Your task to perform on an android device: install app "Speedtest by Ookla" Image 0: 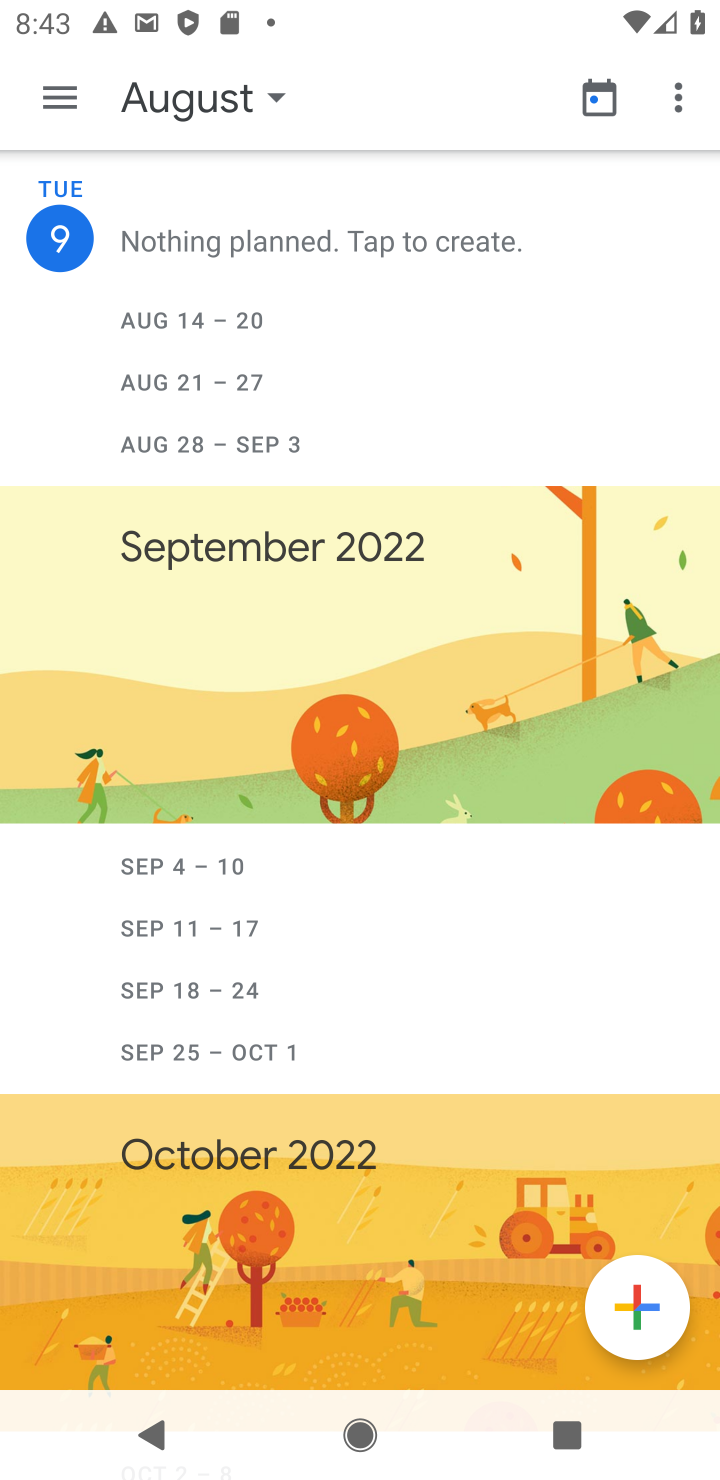
Step 0: press home button
Your task to perform on an android device: install app "Speedtest by Ookla" Image 1: 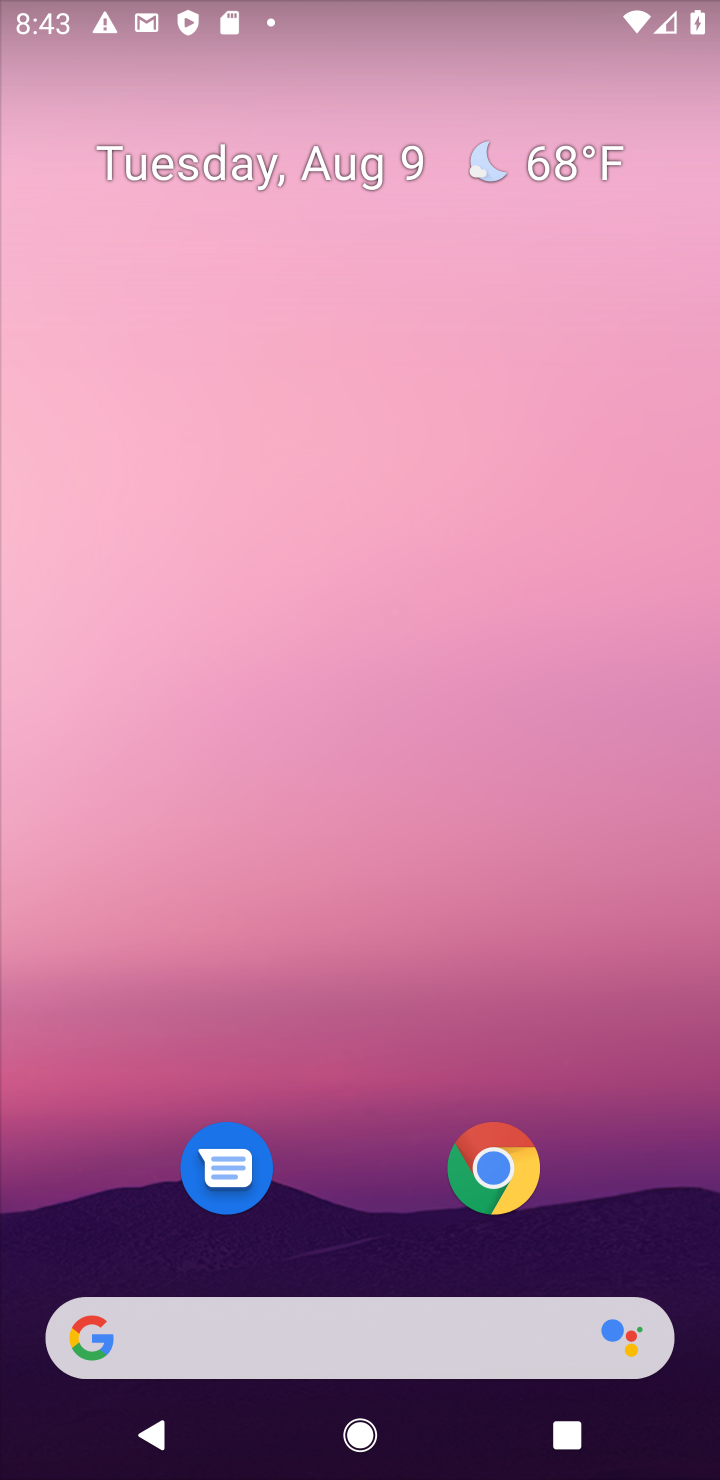
Step 1: drag from (381, 1350) to (140, 33)
Your task to perform on an android device: install app "Speedtest by Ookla" Image 2: 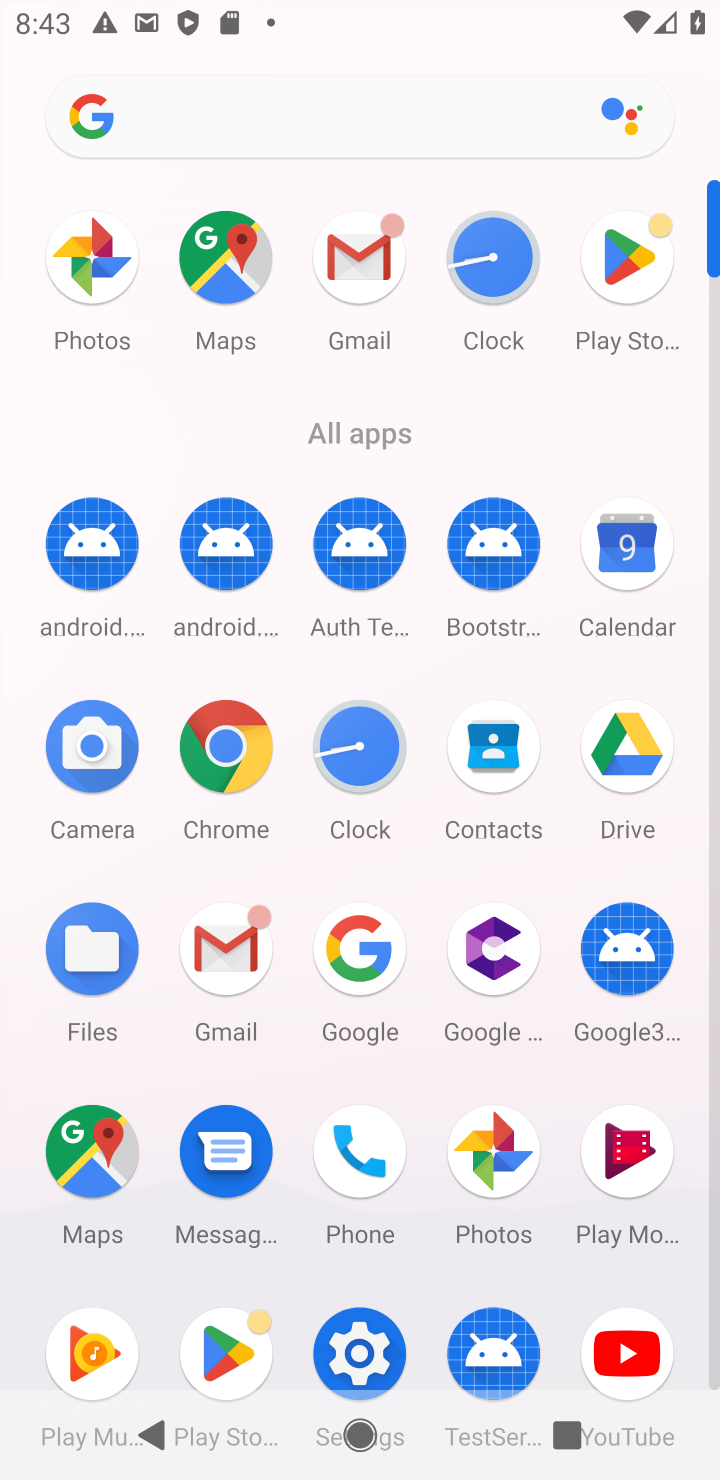
Step 2: click (629, 261)
Your task to perform on an android device: install app "Speedtest by Ookla" Image 3: 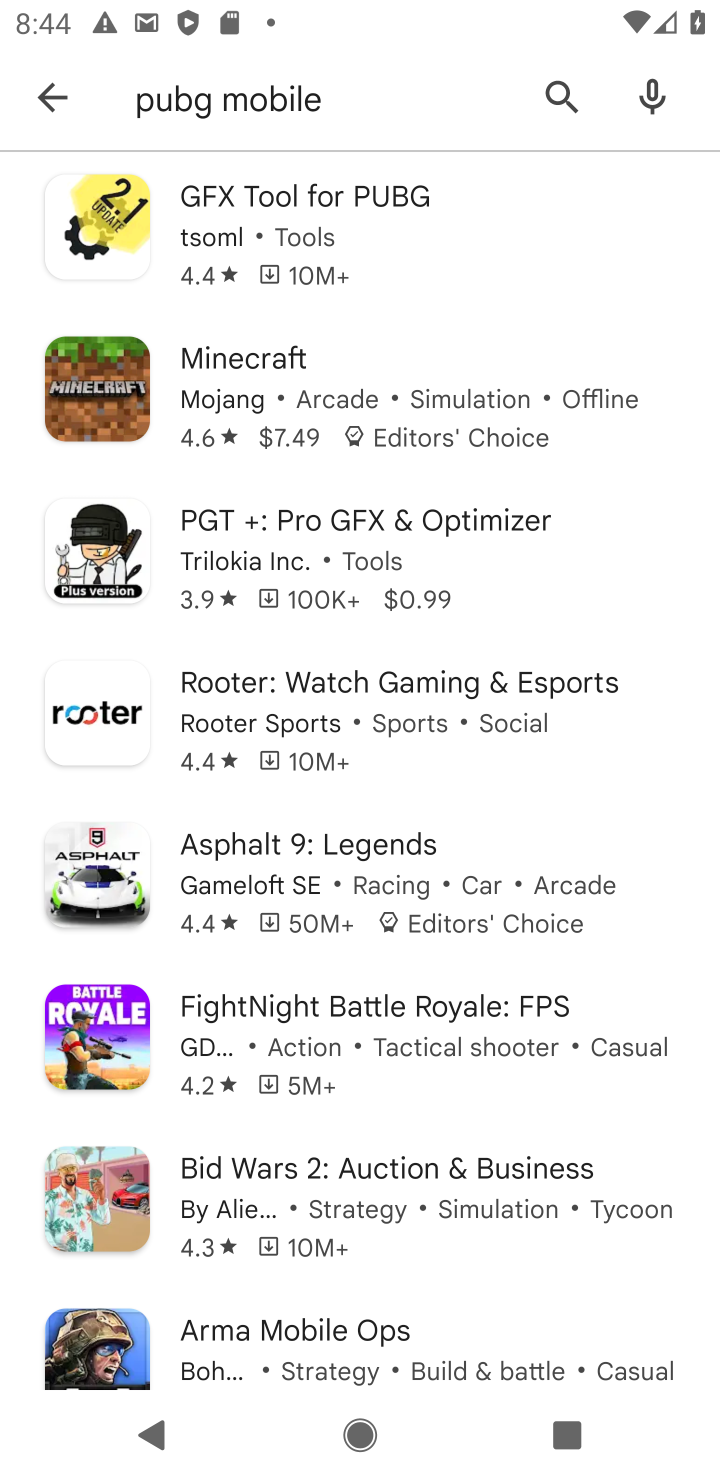
Step 3: click (564, 107)
Your task to perform on an android device: install app "Speedtest by Ookla" Image 4: 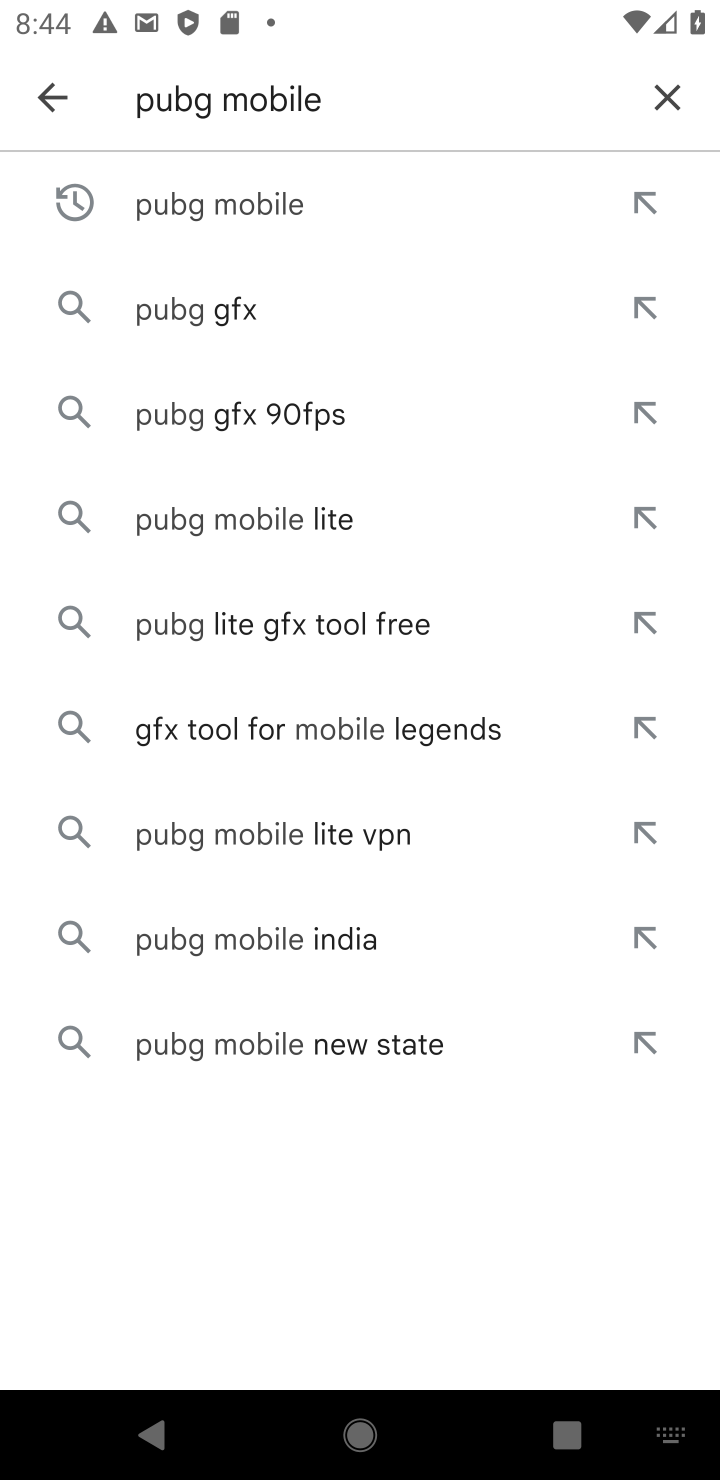
Step 4: click (674, 93)
Your task to perform on an android device: install app "Speedtest by Ookla" Image 5: 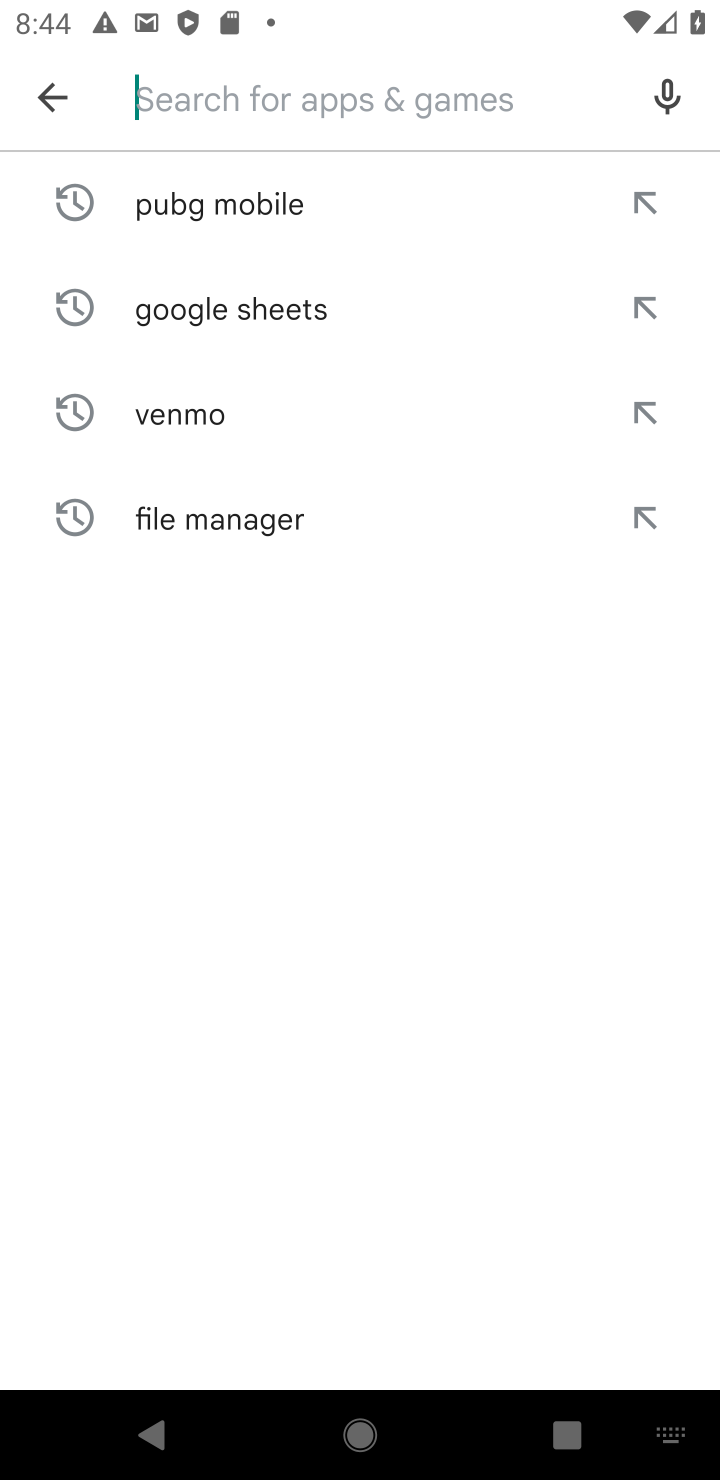
Step 5: type "speedtest by ookla"
Your task to perform on an android device: install app "Speedtest by Ookla" Image 6: 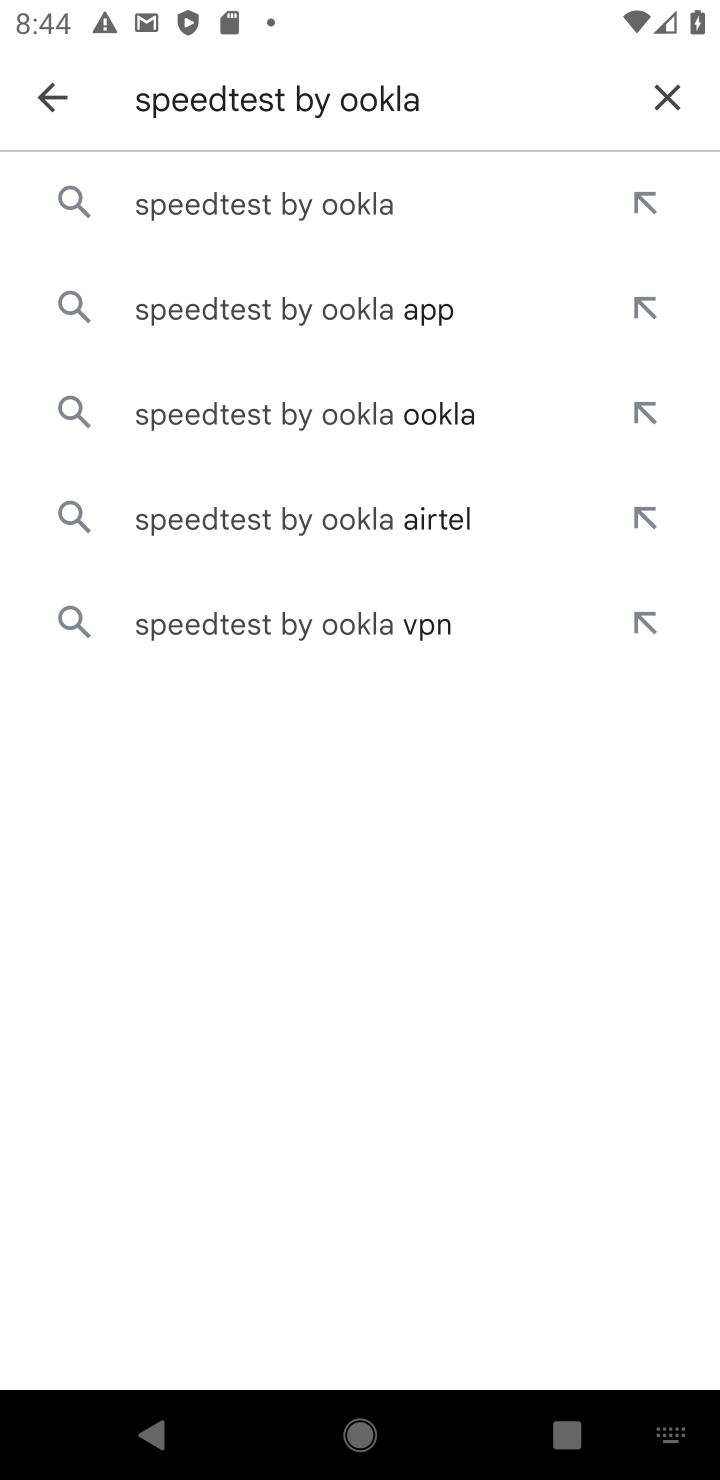
Step 6: click (290, 214)
Your task to perform on an android device: install app "Speedtest by Ookla" Image 7: 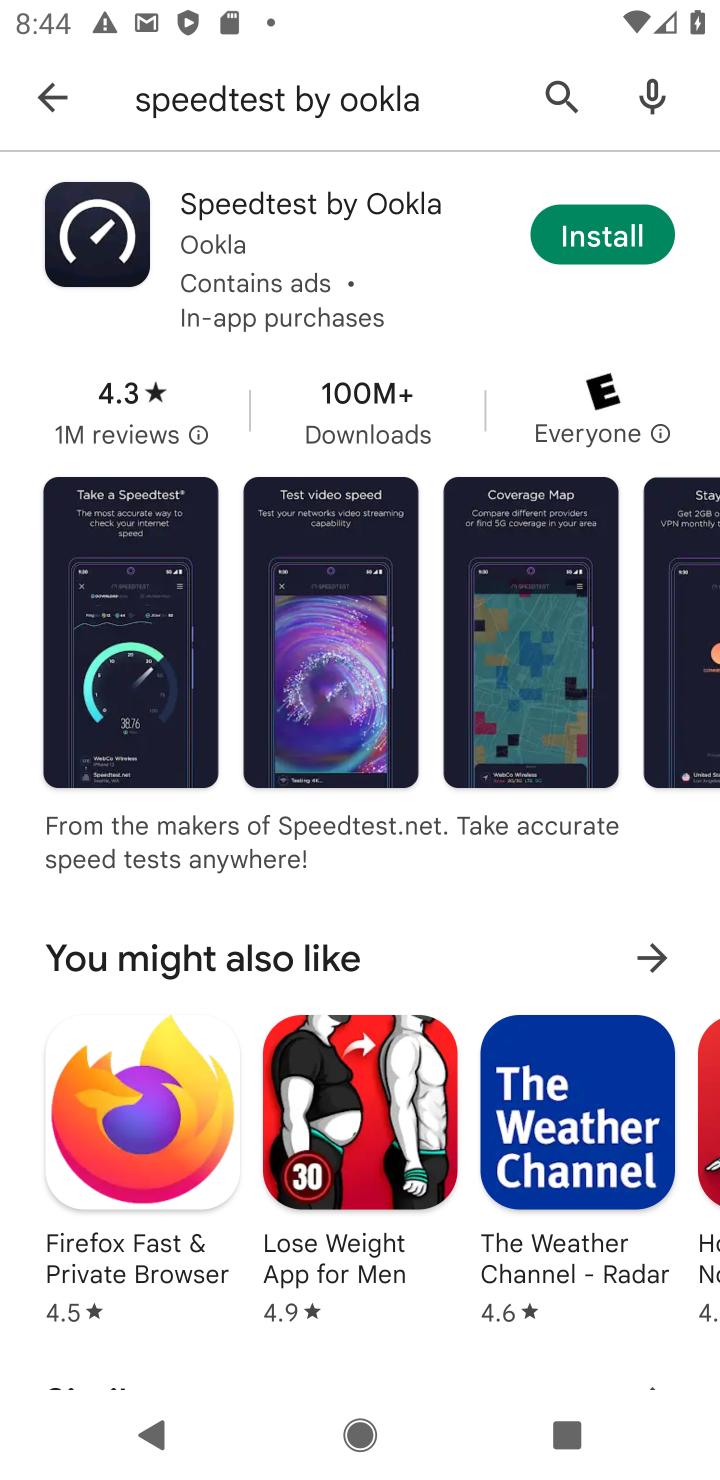
Step 7: click (634, 236)
Your task to perform on an android device: install app "Speedtest by Ookla" Image 8: 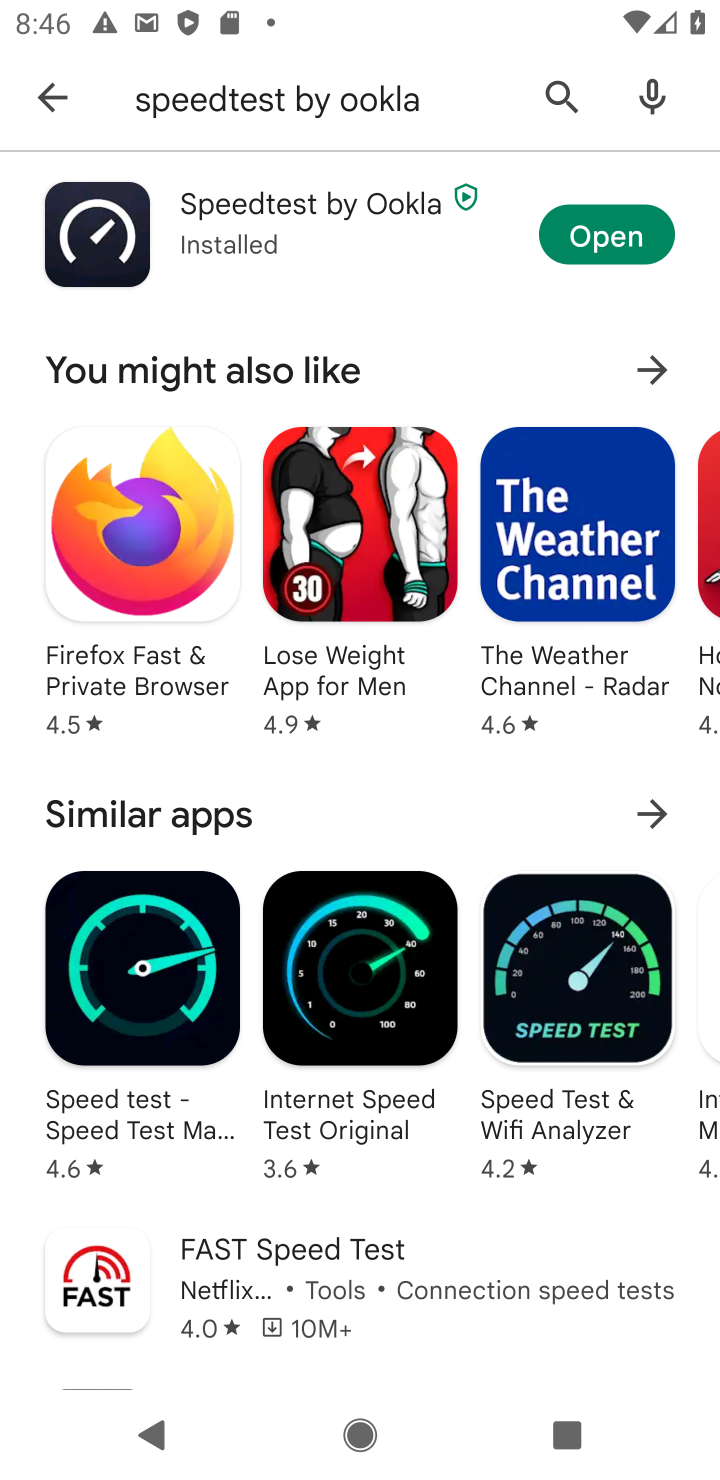
Step 8: task complete